Your task to perform on an android device: Open Google Chrome and open the bookmarks view Image 0: 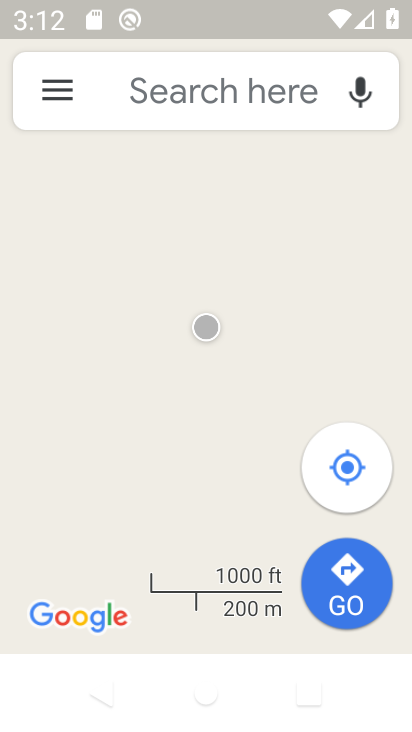
Step 0: press home button
Your task to perform on an android device: Open Google Chrome and open the bookmarks view Image 1: 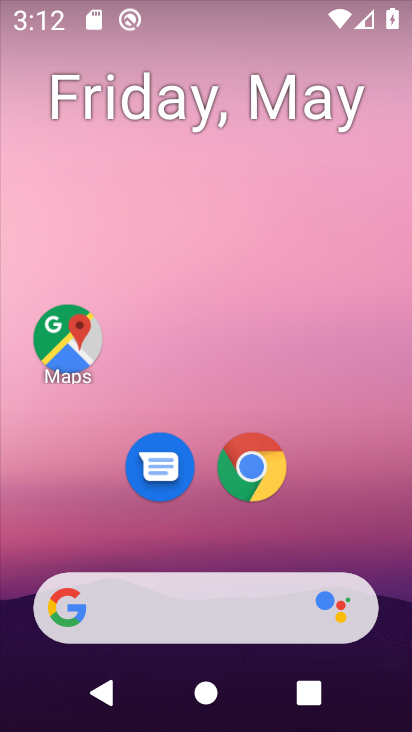
Step 1: drag from (304, 394) to (241, 86)
Your task to perform on an android device: Open Google Chrome and open the bookmarks view Image 2: 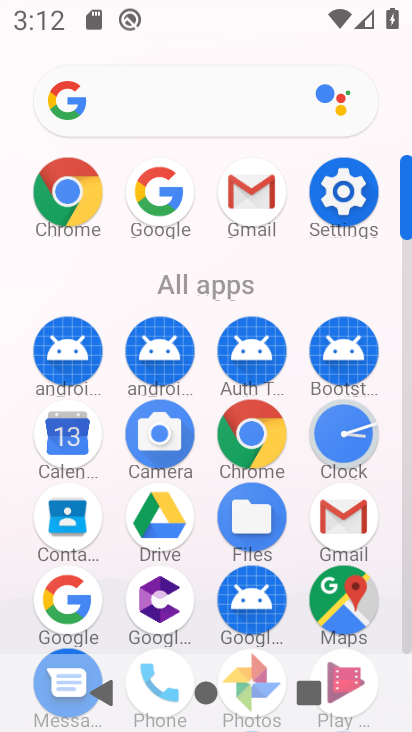
Step 2: click (66, 191)
Your task to perform on an android device: Open Google Chrome and open the bookmarks view Image 3: 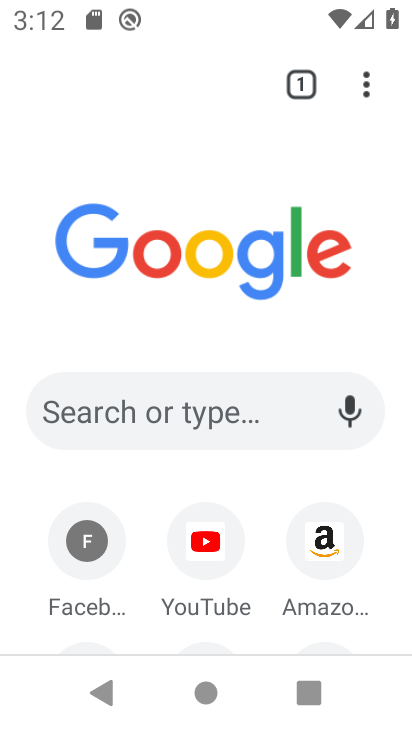
Step 3: click (358, 86)
Your task to perform on an android device: Open Google Chrome and open the bookmarks view Image 4: 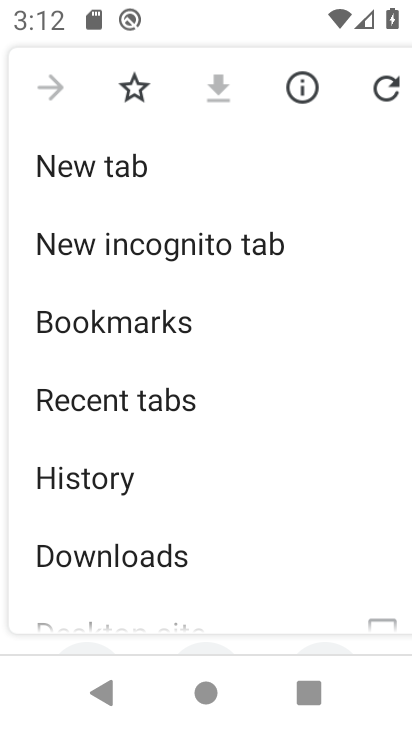
Step 4: click (171, 331)
Your task to perform on an android device: Open Google Chrome and open the bookmarks view Image 5: 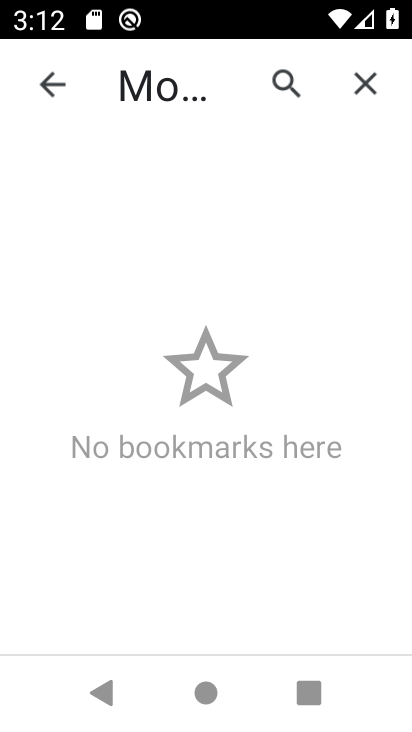
Step 5: task complete